Your task to perform on an android device: Go to display settings Image 0: 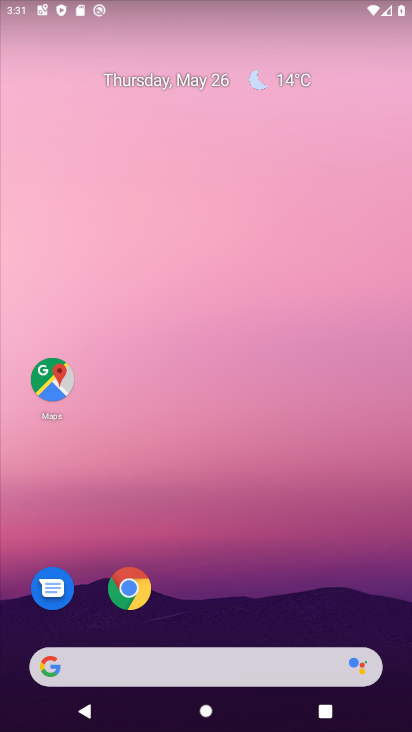
Step 0: drag from (270, 586) to (321, 60)
Your task to perform on an android device: Go to display settings Image 1: 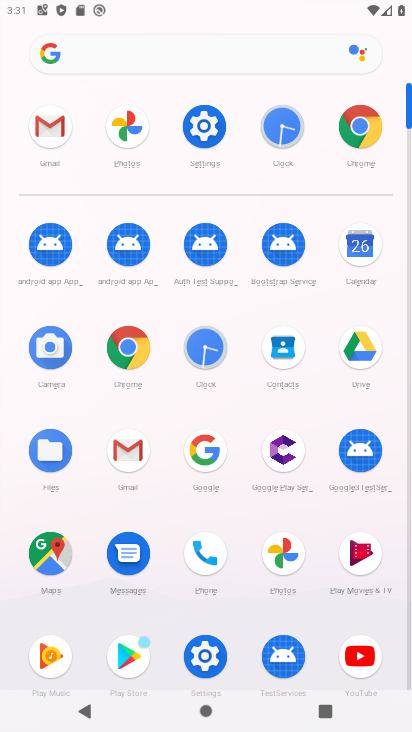
Step 1: click (218, 120)
Your task to perform on an android device: Go to display settings Image 2: 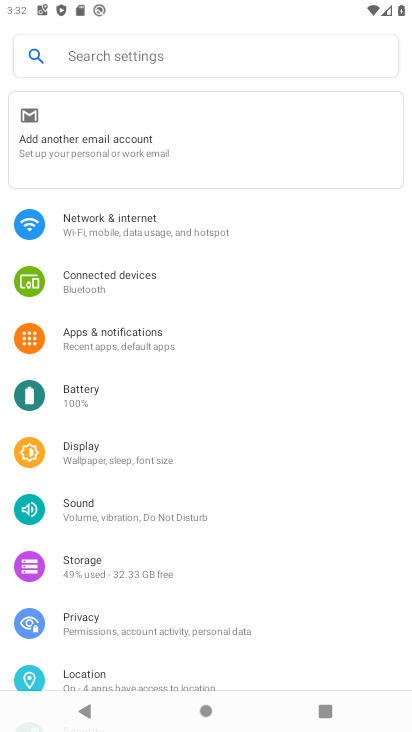
Step 2: click (84, 472)
Your task to perform on an android device: Go to display settings Image 3: 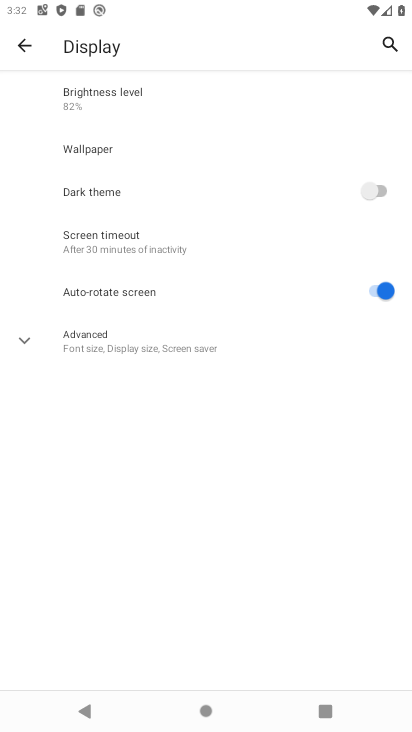
Step 3: task complete